Your task to perform on an android device: Open eBay Image 0: 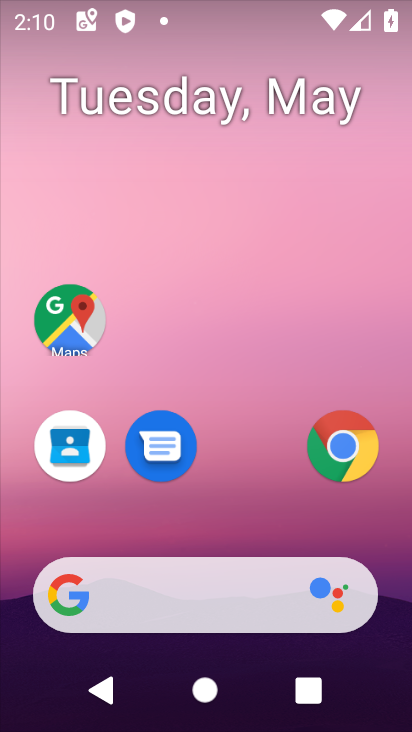
Step 0: click (214, 602)
Your task to perform on an android device: Open eBay Image 1: 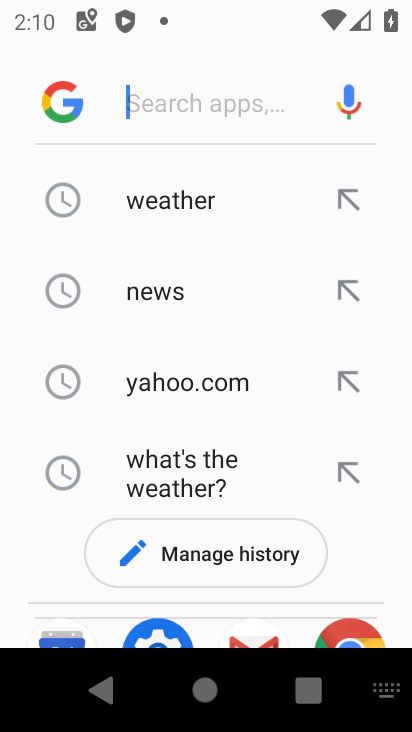
Step 1: press home button
Your task to perform on an android device: Open eBay Image 2: 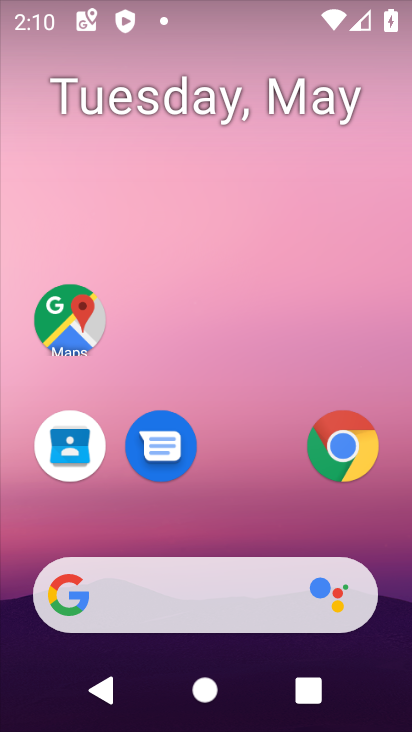
Step 2: click (349, 469)
Your task to perform on an android device: Open eBay Image 3: 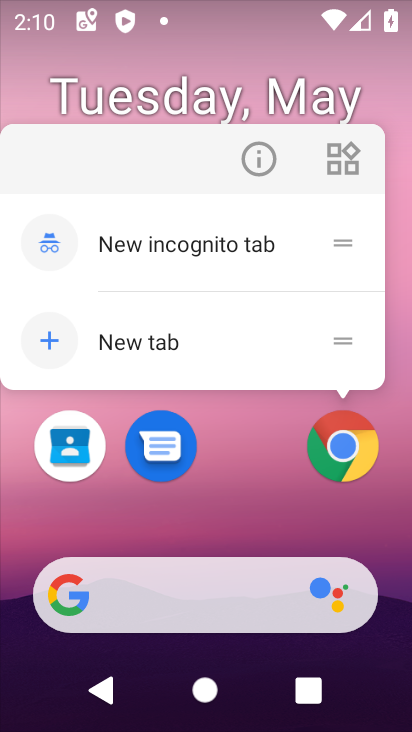
Step 3: click (329, 440)
Your task to perform on an android device: Open eBay Image 4: 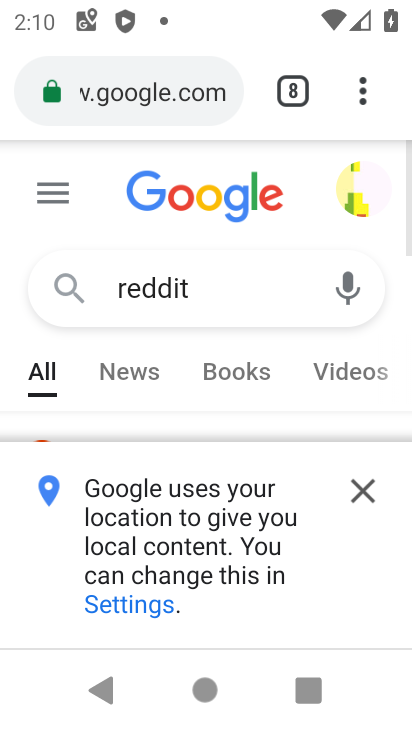
Step 4: click (277, 88)
Your task to perform on an android device: Open eBay Image 5: 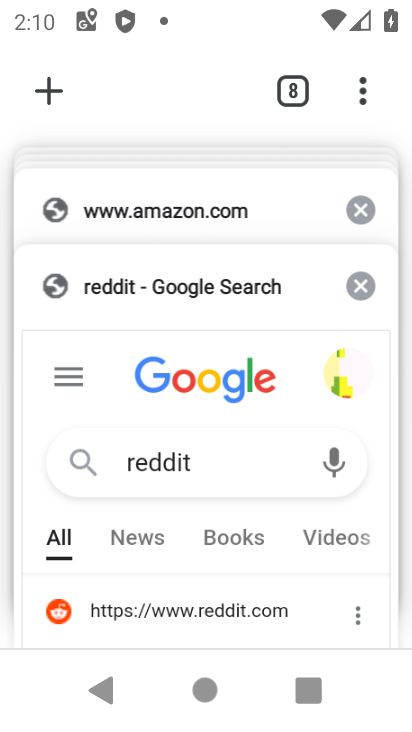
Step 5: click (55, 85)
Your task to perform on an android device: Open eBay Image 6: 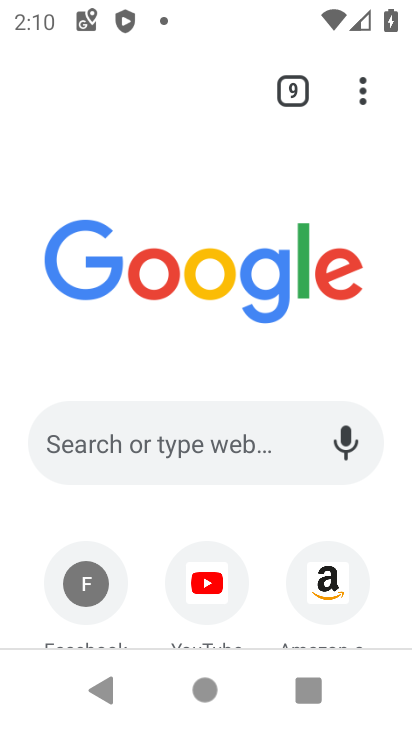
Step 6: drag from (263, 598) to (222, 263)
Your task to perform on an android device: Open eBay Image 7: 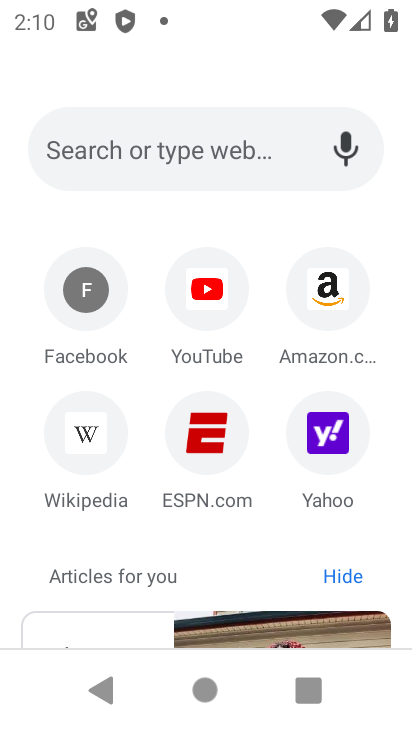
Step 7: click (189, 168)
Your task to perform on an android device: Open eBay Image 8: 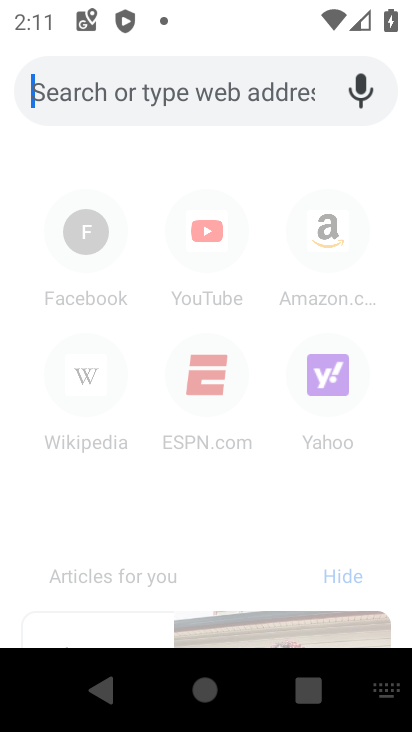
Step 8: type "ebay"
Your task to perform on an android device: Open eBay Image 9: 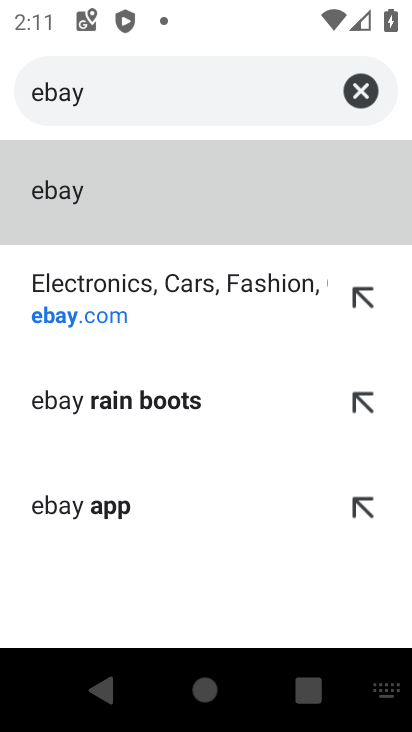
Step 9: click (190, 307)
Your task to perform on an android device: Open eBay Image 10: 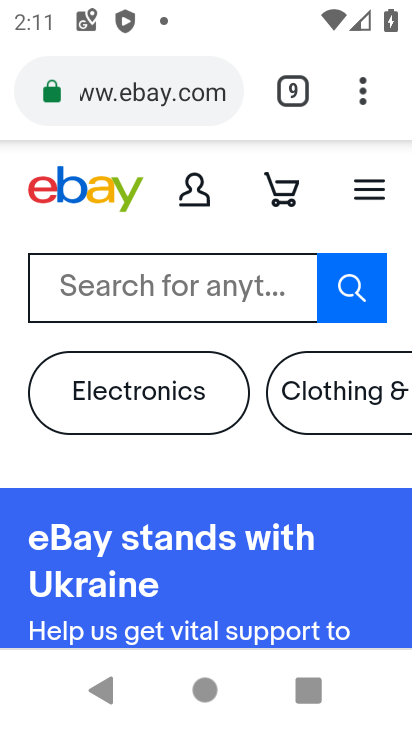
Step 10: task complete